Your task to perform on an android device: open a new tab in the chrome app Image 0: 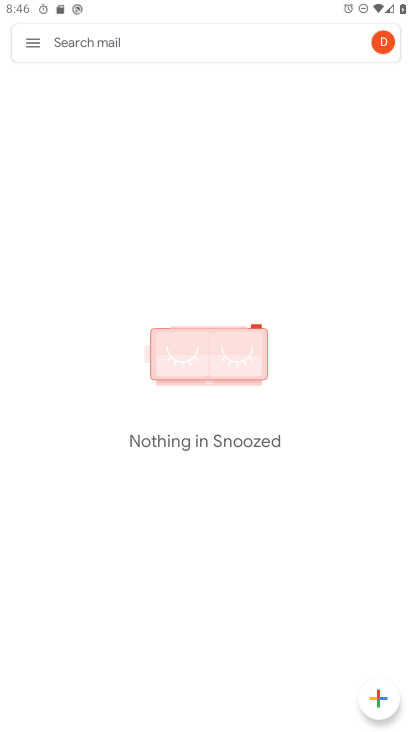
Step 0: press home button
Your task to perform on an android device: open a new tab in the chrome app Image 1: 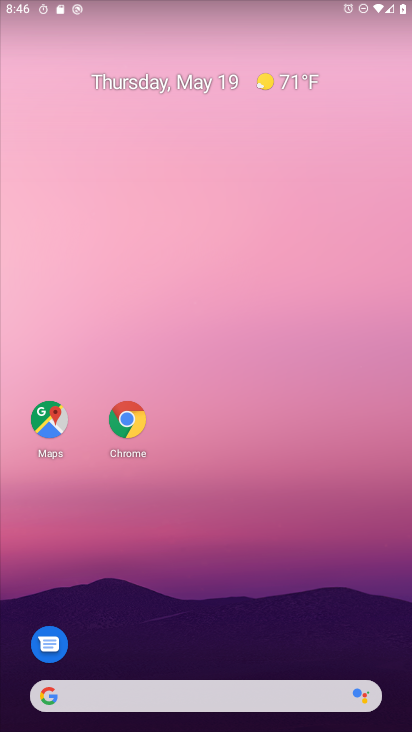
Step 1: click (128, 416)
Your task to perform on an android device: open a new tab in the chrome app Image 2: 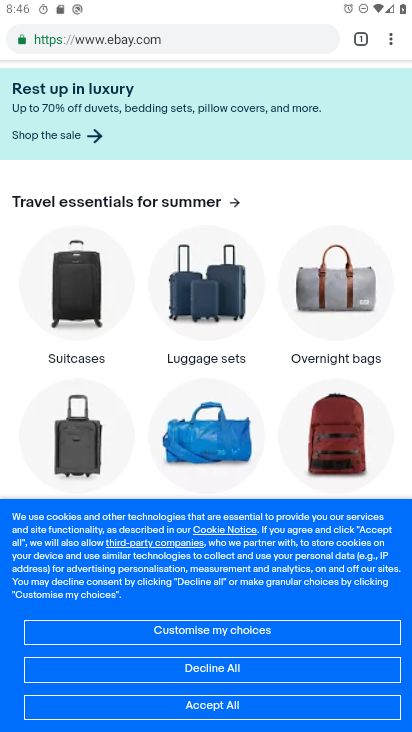
Step 2: click (389, 41)
Your task to perform on an android device: open a new tab in the chrome app Image 3: 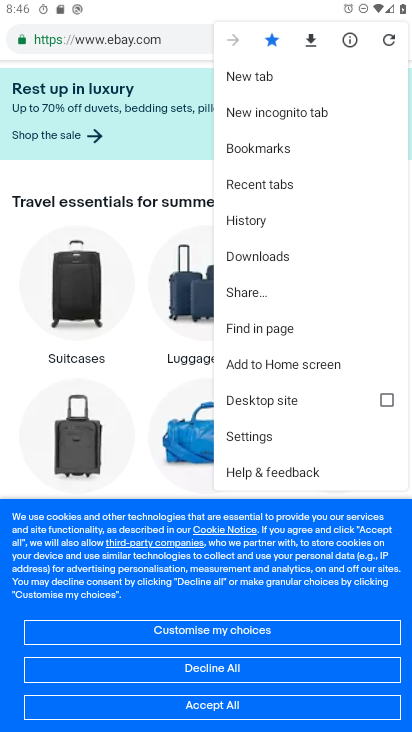
Step 3: click (249, 82)
Your task to perform on an android device: open a new tab in the chrome app Image 4: 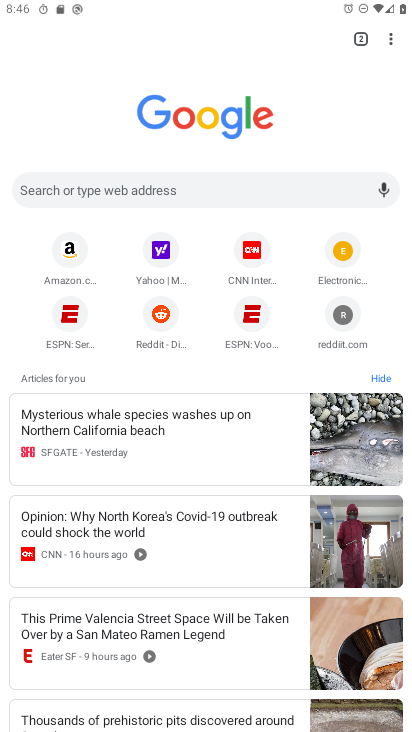
Step 4: task complete